Your task to perform on an android device: check out phone information Image 0: 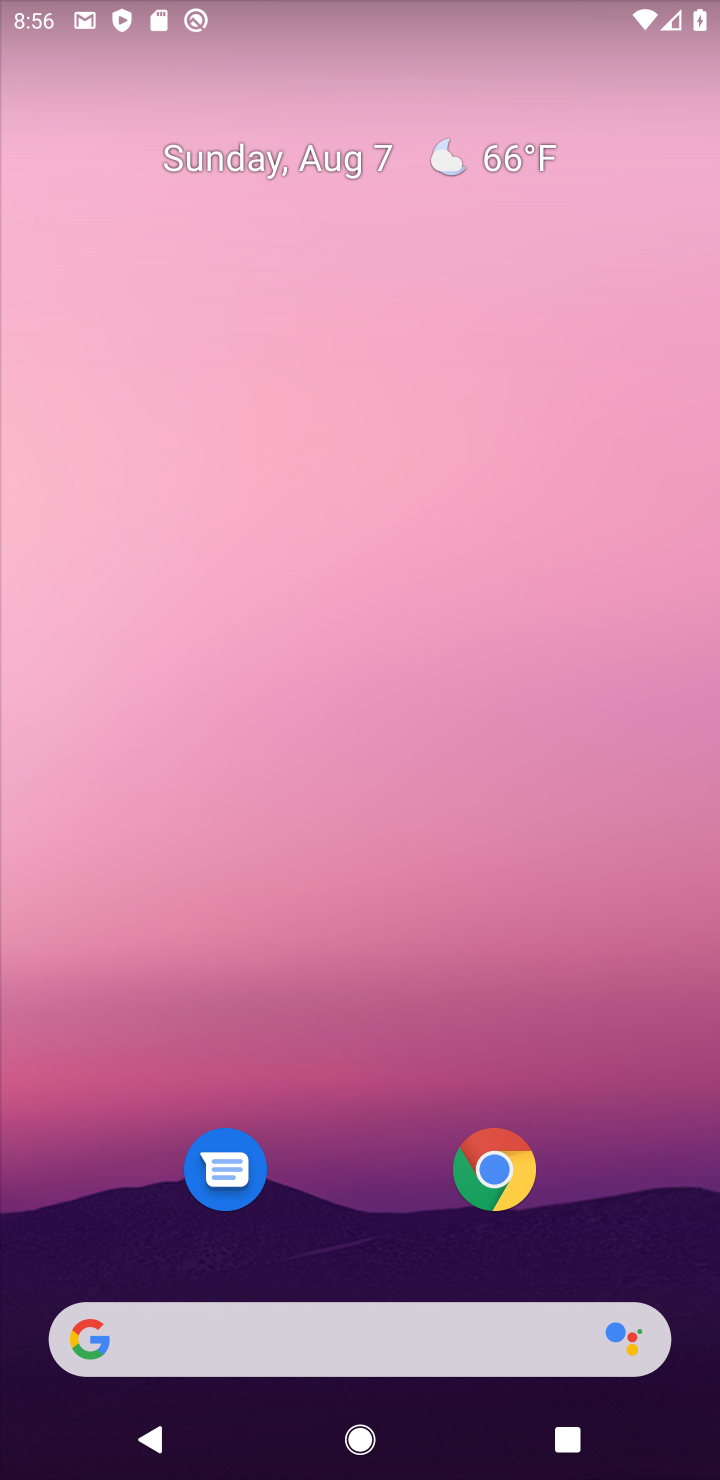
Step 0: drag from (423, 1220) to (402, 9)
Your task to perform on an android device: check out phone information Image 1: 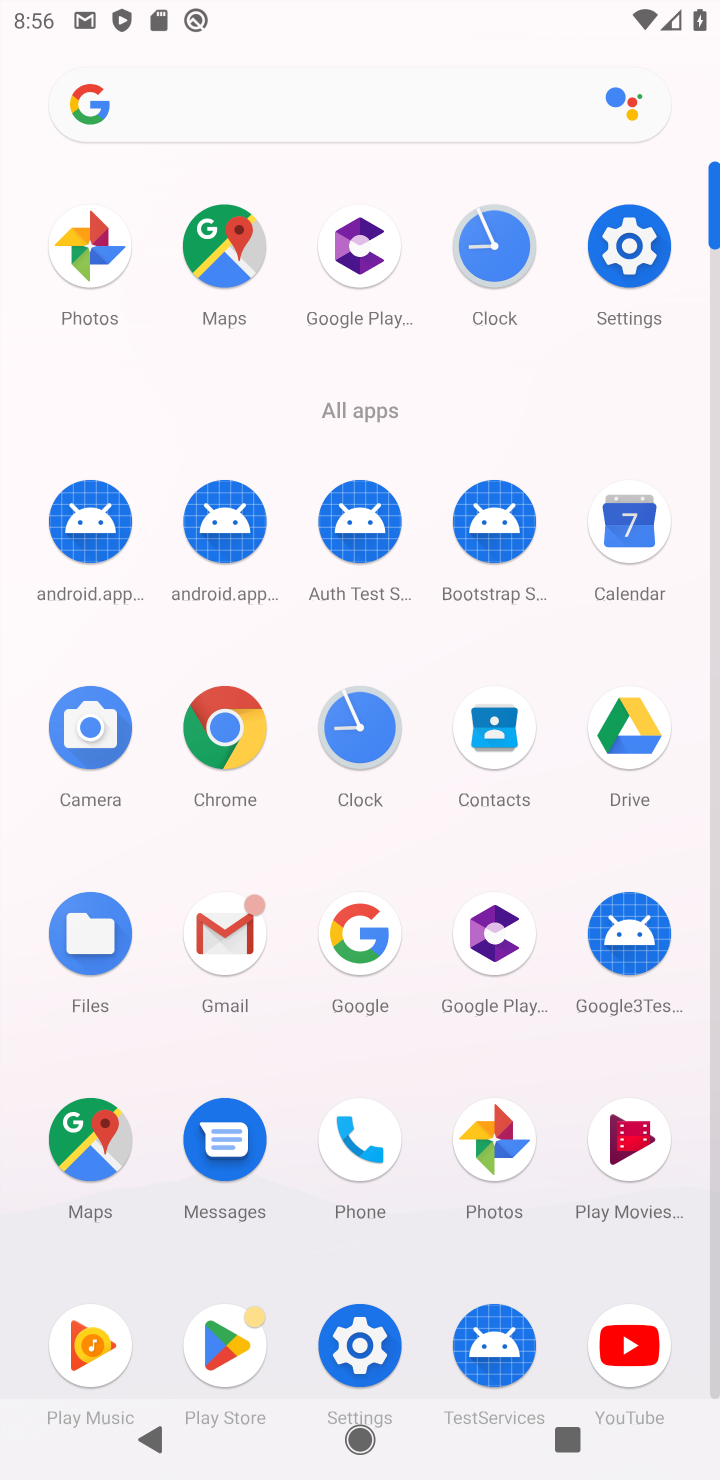
Step 1: click (619, 325)
Your task to perform on an android device: check out phone information Image 2: 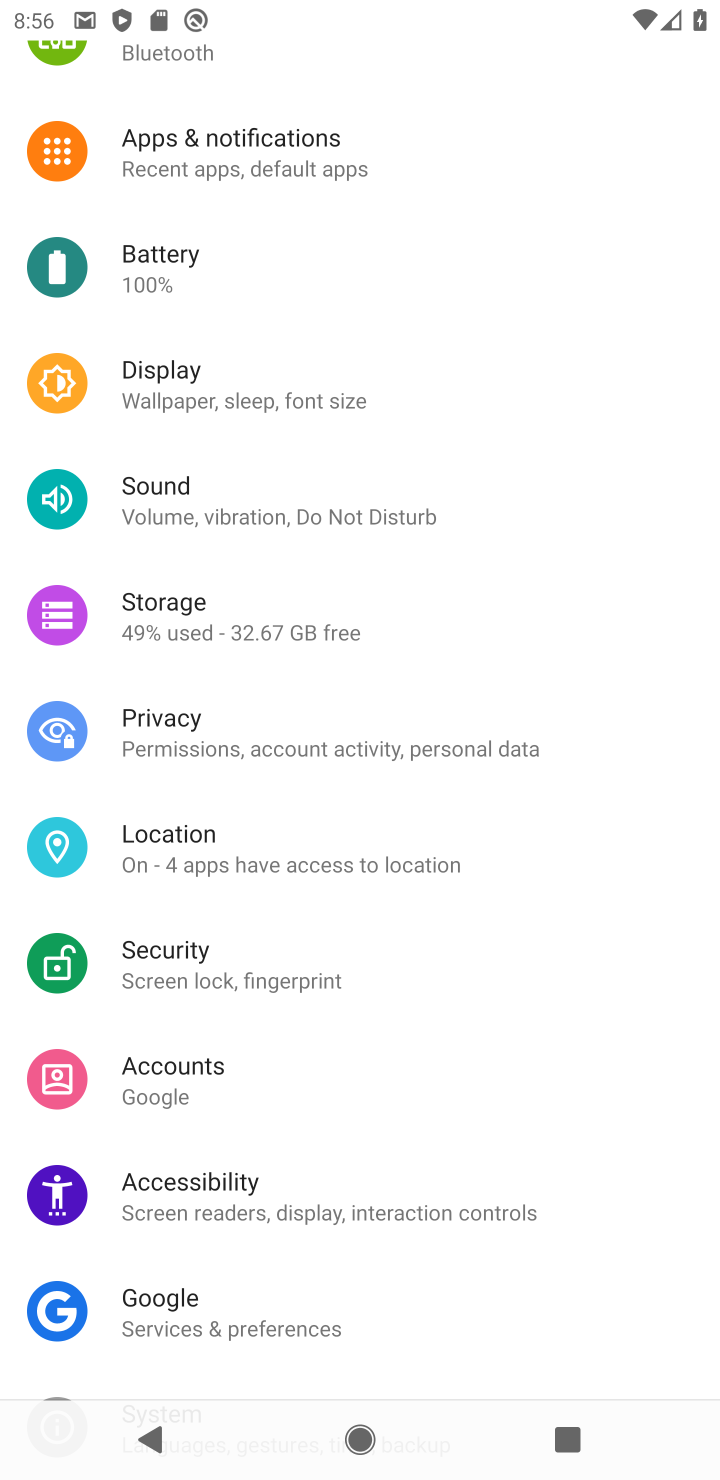
Step 2: task complete